Your task to perform on an android device: Go to internet settings Image 0: 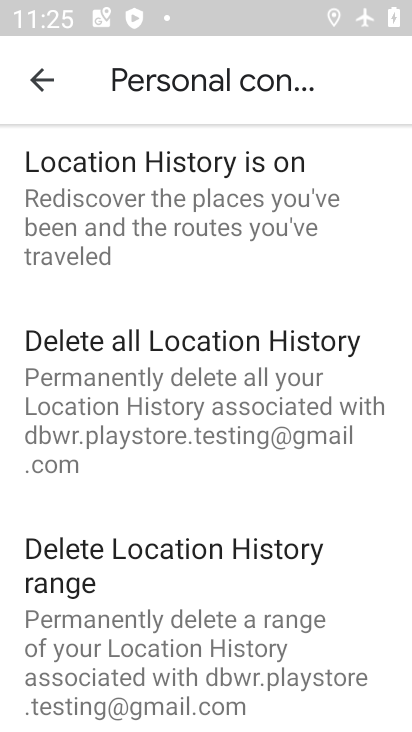
Step 0: press home button
Your task to perform on an android device: Go to internet settings Image 1: 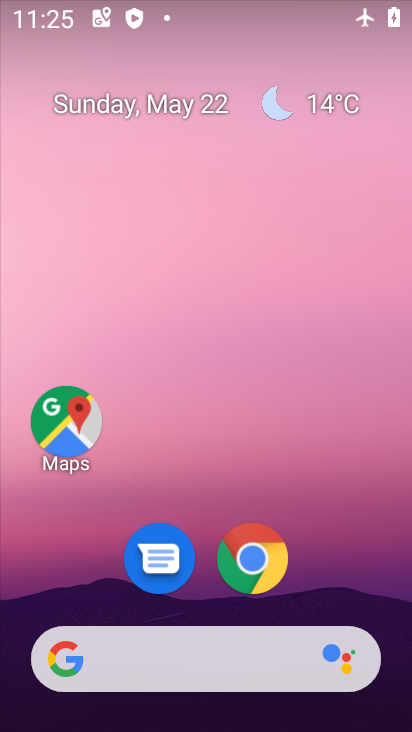
Step 1: drag from (361, 595) to (399, 13)
Your task to perform on an android device: Go to internet settings Image 2: 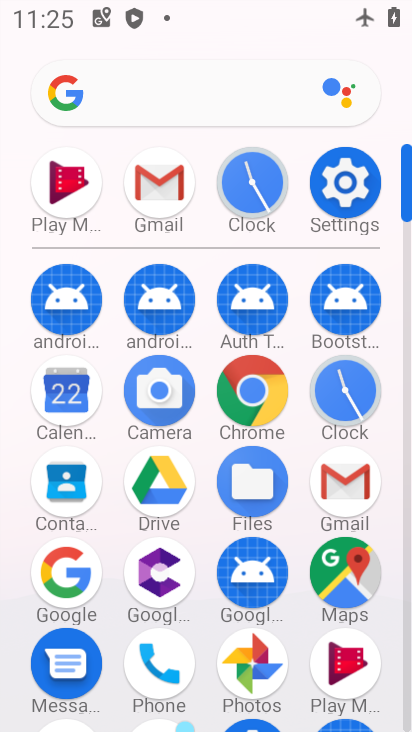
Step 2: click (351, 184)
Your task to perform on an android device: Go to internet settings Image 3: 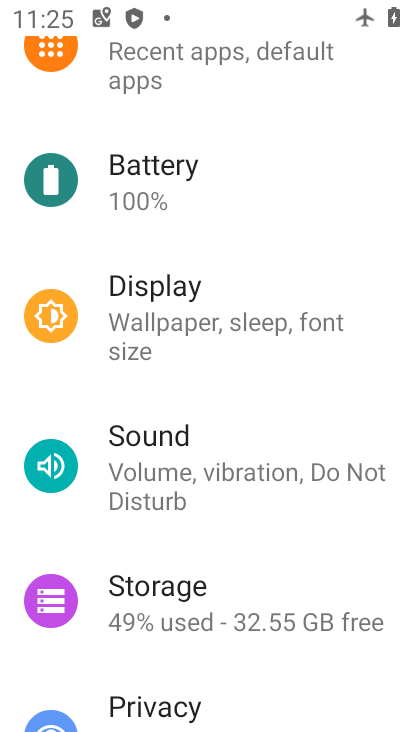
Step 3: drag from (294, 185) to (281, 609)
Your task to perform on an android device: Go to internet settings Image 4: 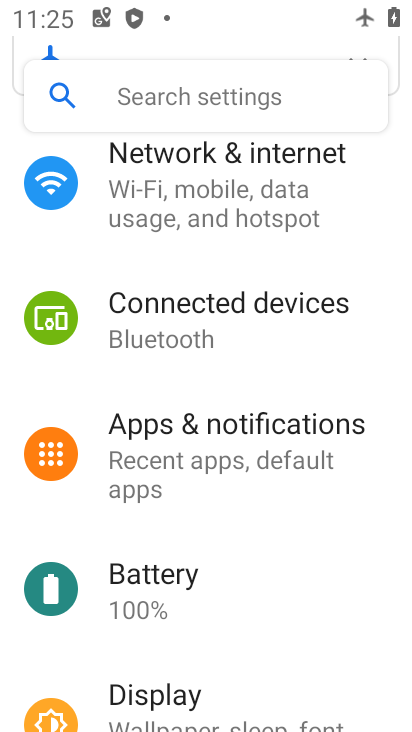
Step 4: drag from (336, 239) to (336, 518)
Your task to perform on an android device: Go to internet settings Image 5: 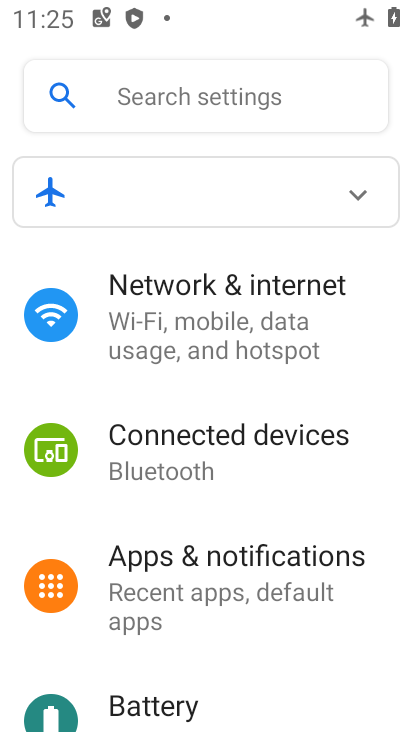
Step 5: click (233, 345)
Your task to perform on an android device: Go to internet settings Image 6: 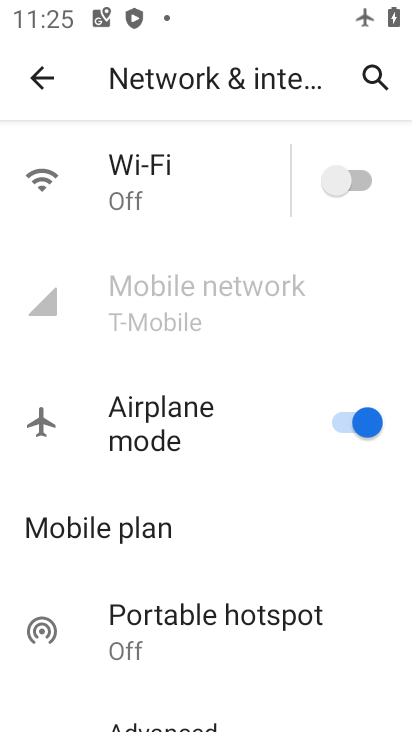
Step 6: task complete